Your task to perform on an android device: open wifi settings Image 0: 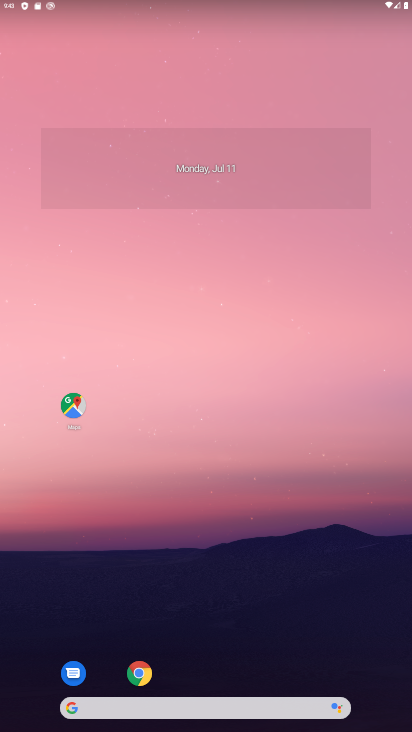
Step 0: drag from (182, 692) to (278, 7)
Your task to perform on an android device: open wifi settings Image 1: 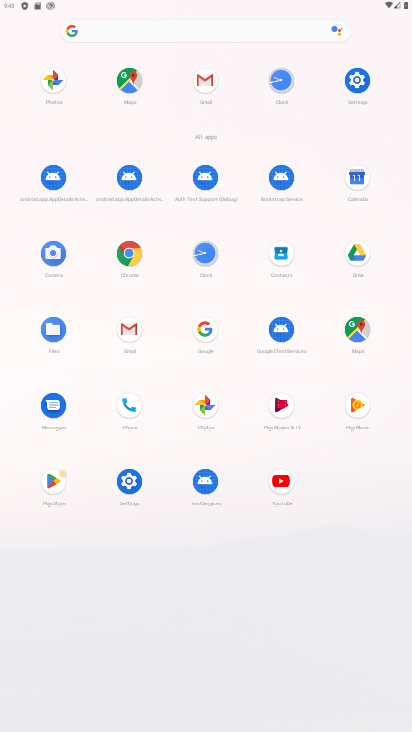
Step 1: click (137, 468)
Your task to perform on an android device: open wifi settings Image 2: 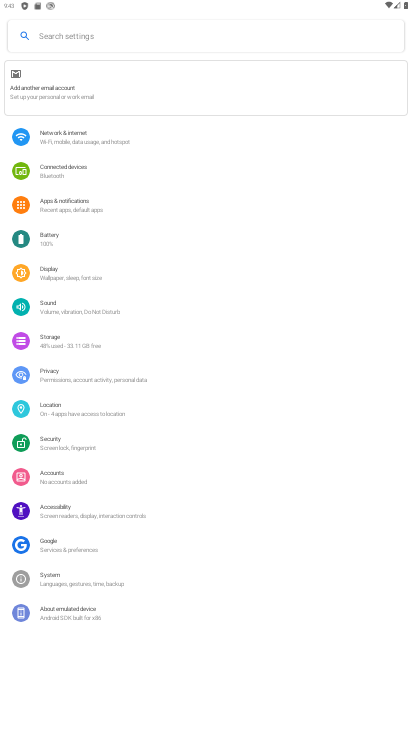
Step 2: click (79, 143)
Your task to perform on an android device: open wifi settings Image 3: 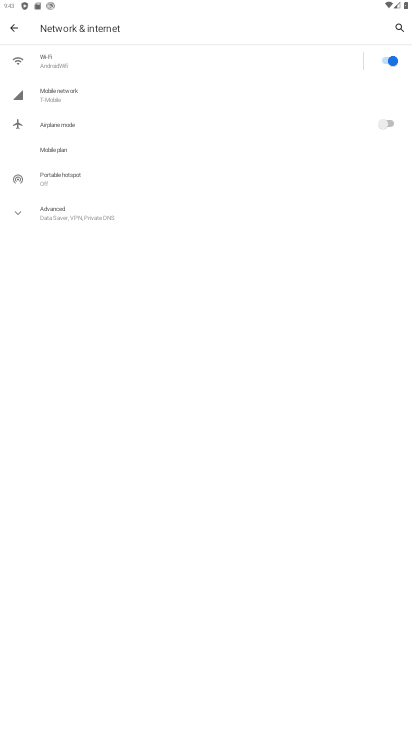
Step 3: click (85, 57)
Your task to perform on an android device: open wifi settings Image 4: 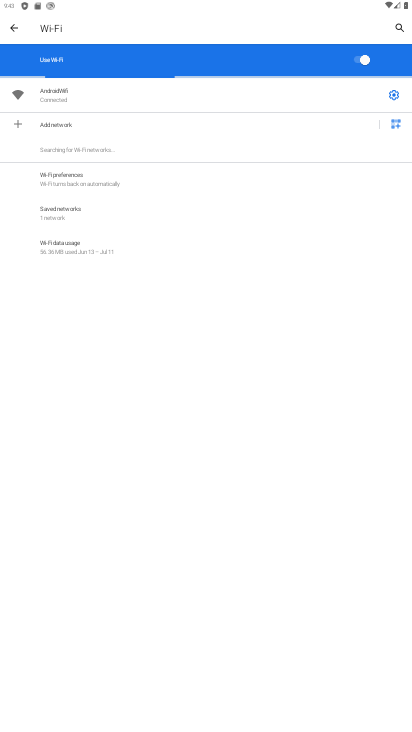
Step 4: task complete